Your task to perform on an android device: Set the phone to "Do not disturb". Image 0: 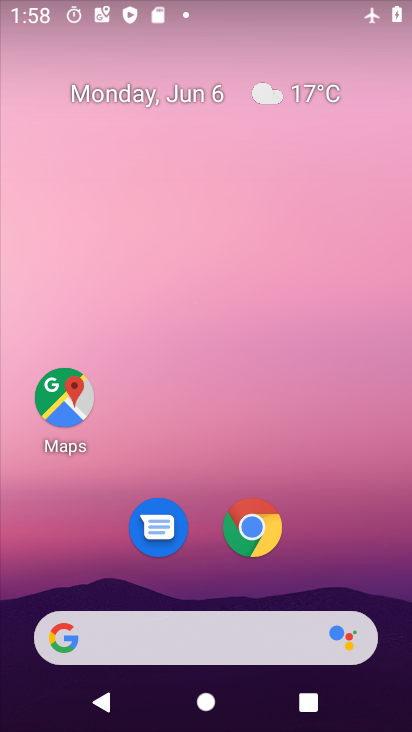
Step 0: drag from (235, 723) to (235, 112)
Your task to perform on an android device: Set the phone to "Do not disturb". Image 1: 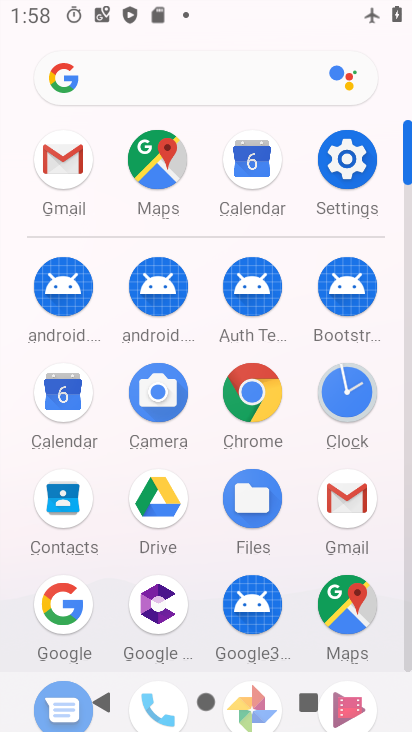
Step 1: click (338, 168)
Your task to perform on an android device: Set the phone to "Do not disturb". Image 2: 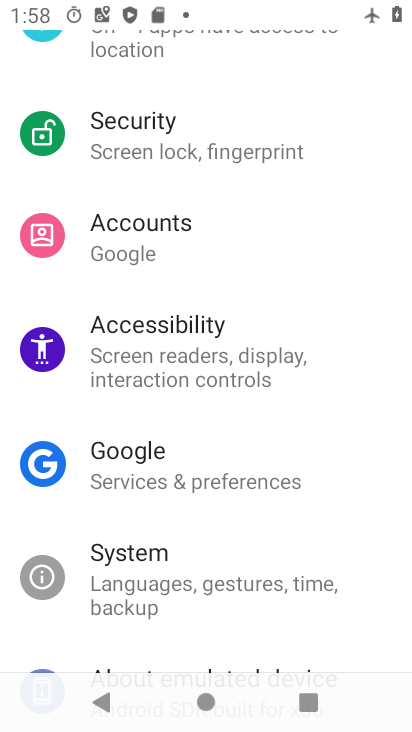
Step 2: drag from (194, 634) to (189, 188)
Your task to perform on an android device: Set the phone to "Do not disturb". Image 3: 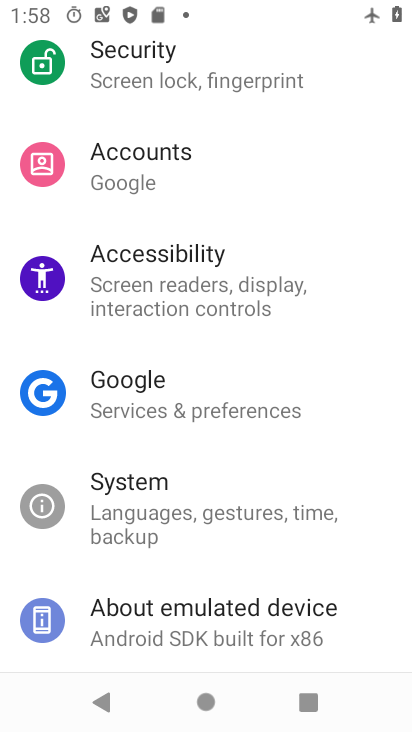
Step 3: drag from (217, 128) to (266, 557)
Your task to perform on an android device: Set the phone to "Do not disturb". Image 4: 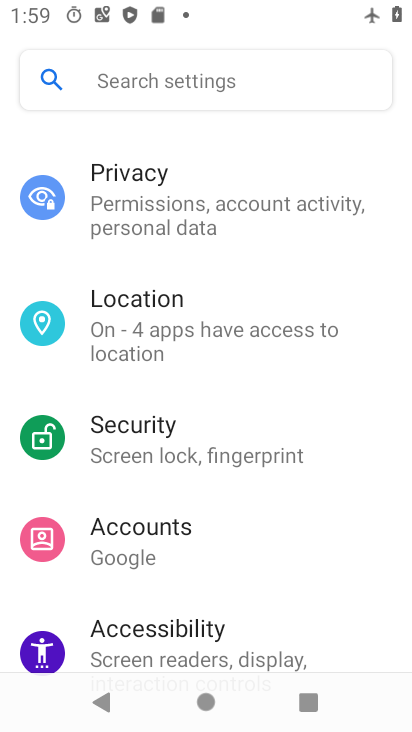
Step 4: drag from (228, 172) to (232, 509)
Your task to perform on an android device: Set the phone to "Do not disturb". Image 5: 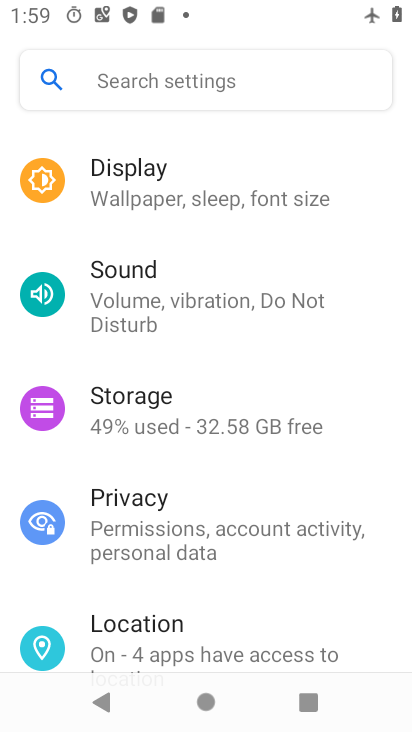
Step 5: click (239, 304)
Your task to perform on an android device: Set the phone to "Do not disturb". Image 6: 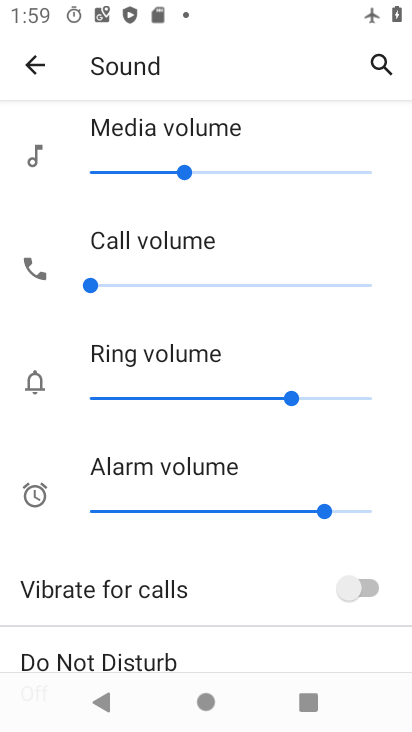
Step 6: drag from (256, 648) to (258, 241)
Your task to perform on an android device: Set the phone to "Do not disturb". Image 7: 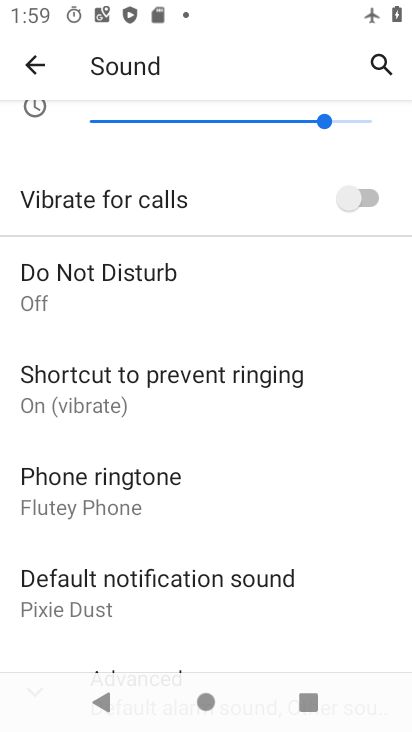
Step 7: click (66, 279)
Your task to perform on an android device: Set the phone to "Do not disturb". Image 8: 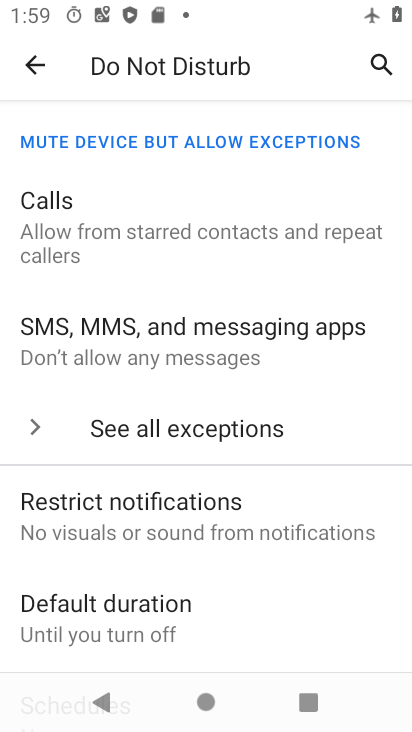
Step 8: drag from (153, 620) to (155, 271)
Your task to perform on an android device: Set the phone to "Do not disturb". Image 9: 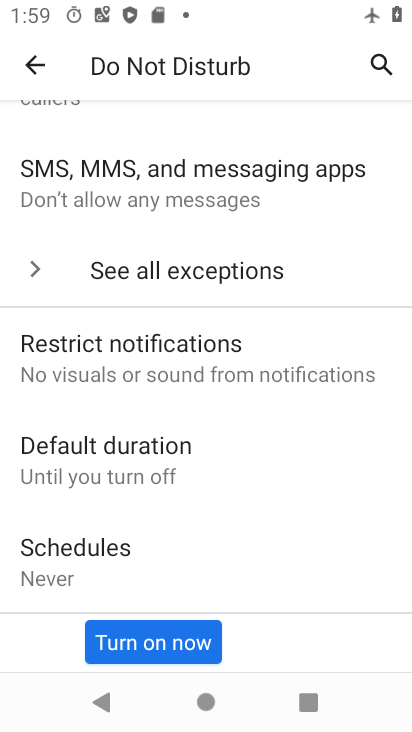
Step 9: click (164, 633)
Your task to perform on an android device: Set the phone to "Do not disturb". Image 10: 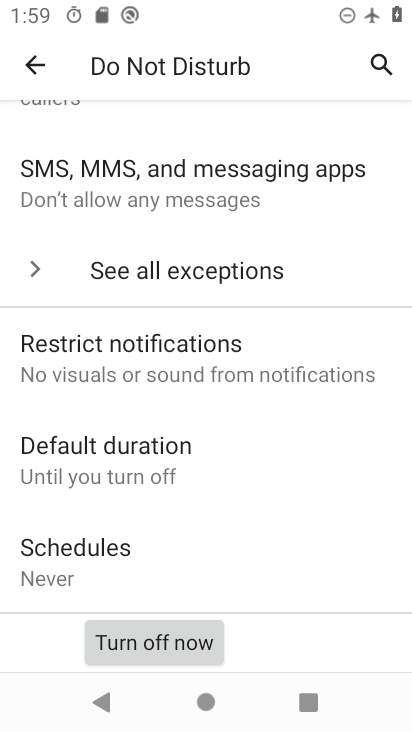
Step 10: task complete